Your task to perform on an android device: turn off notifications settings in the gmail app Image 0: 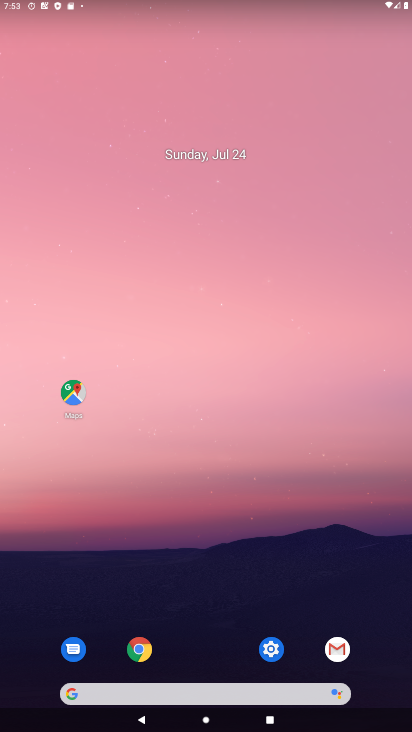
Step 0: click (337, 640)
Your task to perform on an android device: turn off notifications settings in the gmail app Image 1: 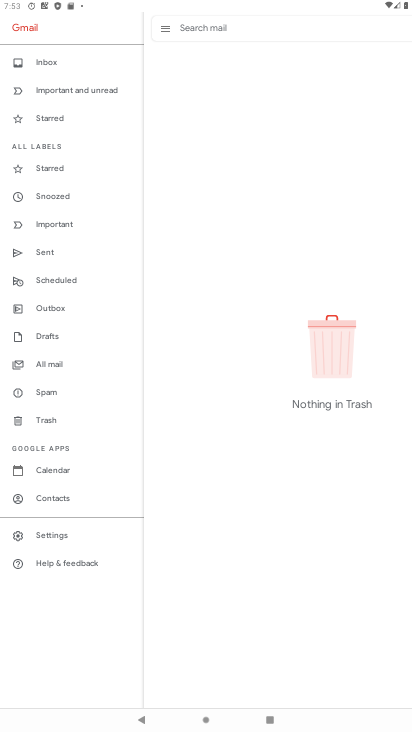
Step 1: click (77, 531)
Your task to perform on an android device: turn off notifications settings in the gmail app Image 2: 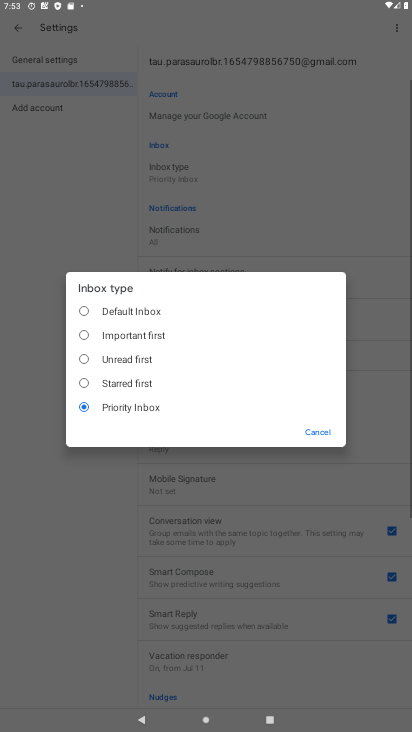
Step 2: click (243, 508)
Your task to perform on an android device: turn off notifications settings in the gmail app Image 3: 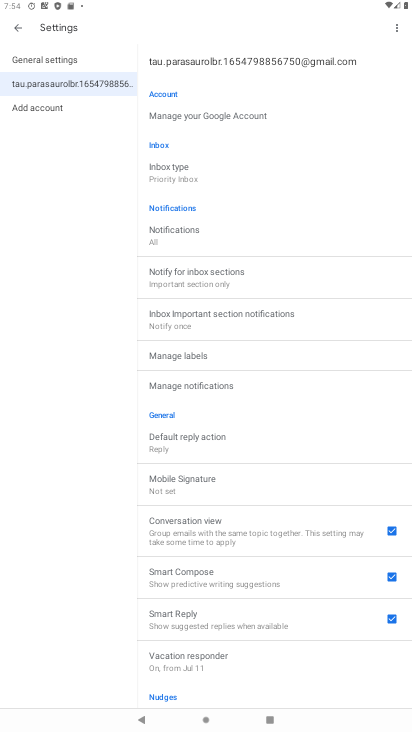
Step 3: click (188, 235)
Your task to perform on an android device: turn off notifications settings in the gmail app Image 4: 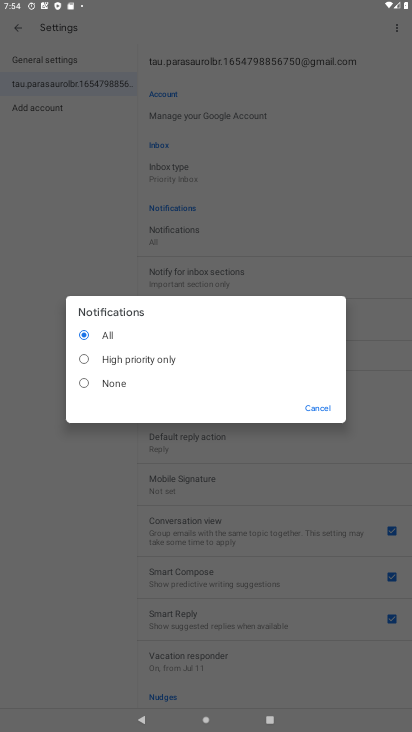
Step 4: click (128, 385)
Your task to perform on an android device: turn off notifications settings in the gmail app Image 5: 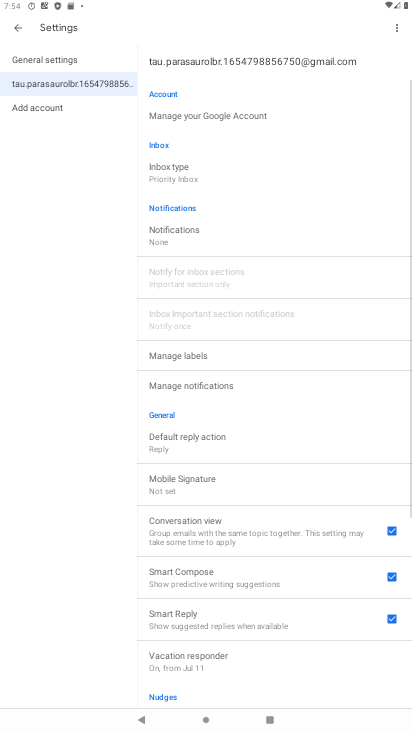
Step 5: task complete